Your task to perform on an android device: check android version Image 0: 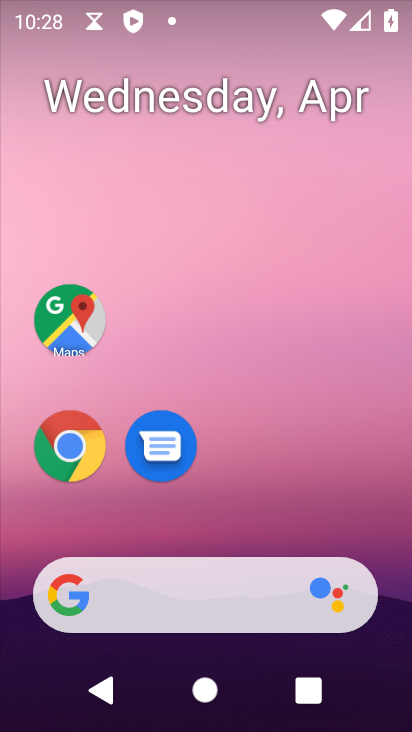
Step 0: drag from (225, 543) to (234, 17)
Your task to perform on an android device: check android version Image 1: 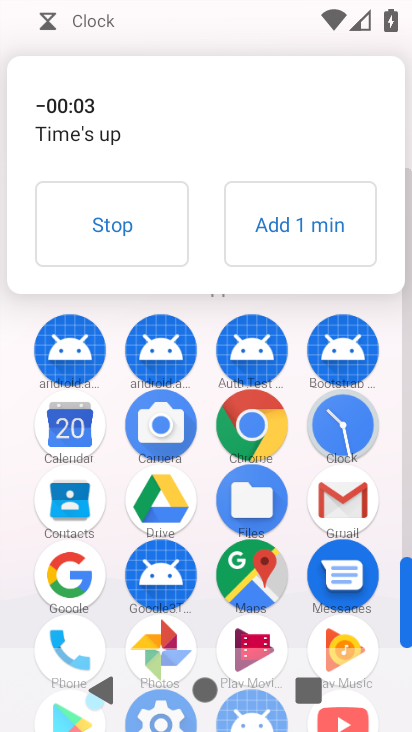
Step 1: click (135, 220)
Your task to perform on an android device: check android version Image 2: 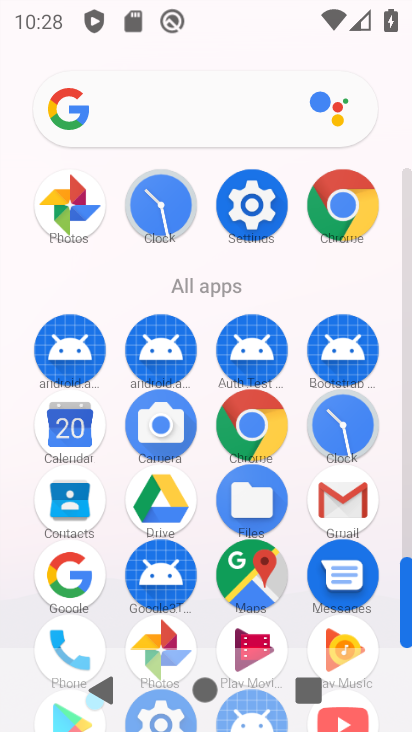
Step 2: click (252, 183)
Your task to perform on an android device: check android version Image 3: 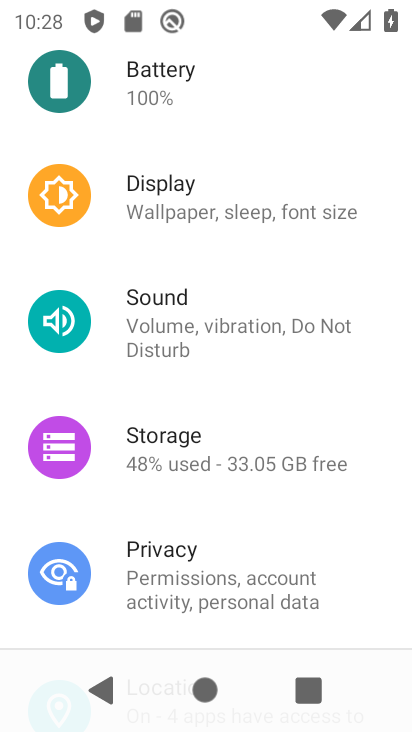
Step 3: drag from (240, 565) to (242, 125)
Your task to perform on an android device: check android version Image 4: 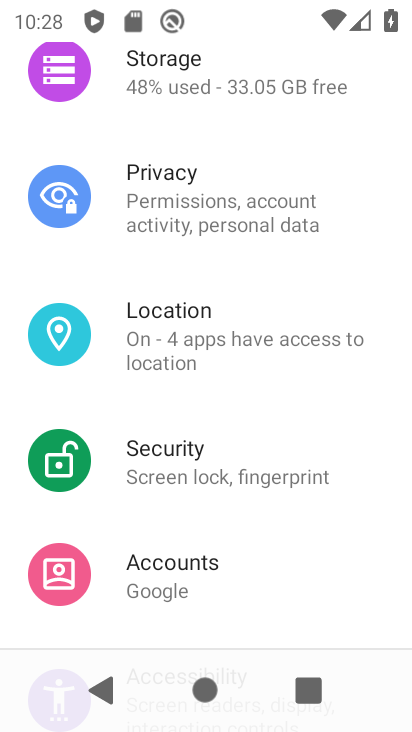
Step 4: drag from (228, 497) to (250, 79)
Your task to perform on an android device: check android version Image 5: 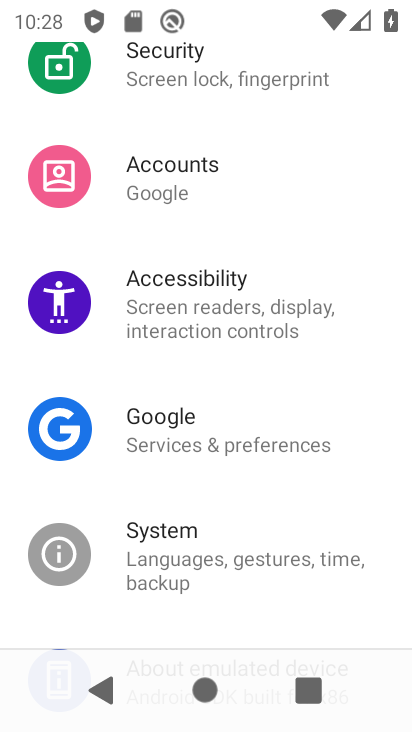
Step 5: drag from (244, 561) to (221, 87)
Your task to perform on an android device: check android version Image 6: 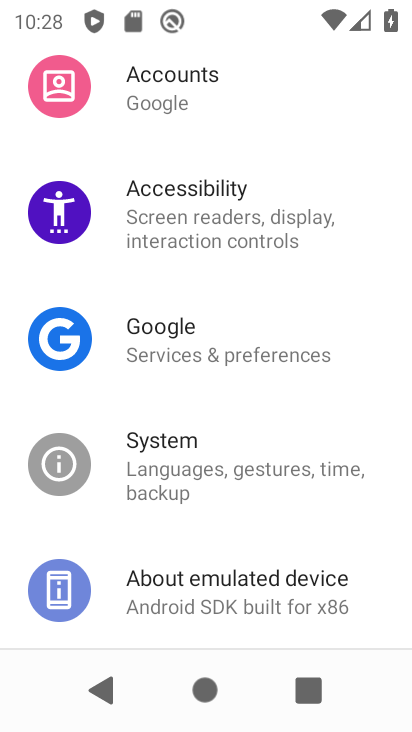
Step 6: click (197, 577)
Your task to perform on an android device: check android version Image 7: 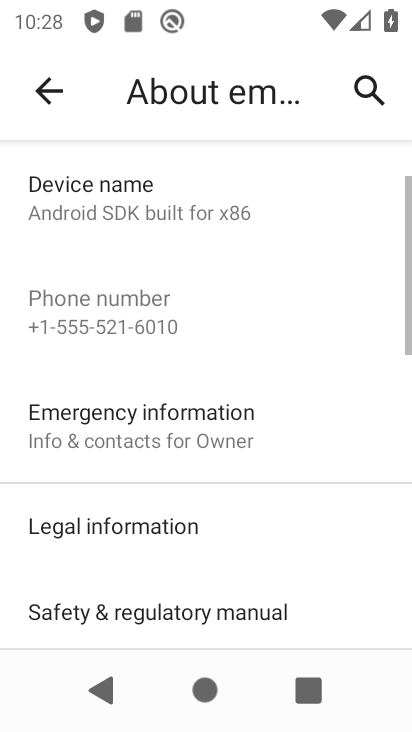
Step 7: drag from (260, 515) to (221, 93)
Your task to perform on an android device: check android version Image 8: 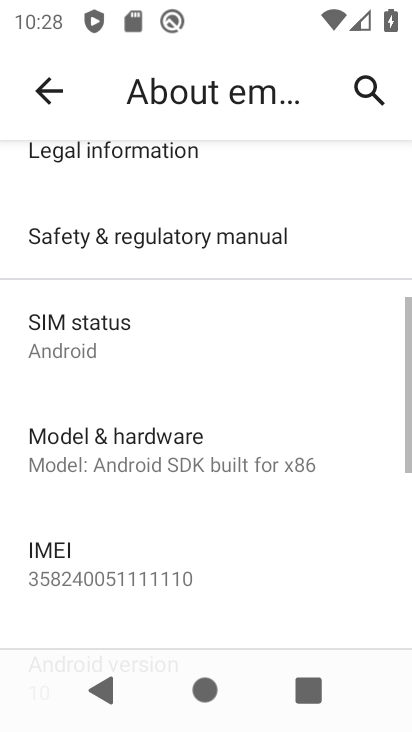
Step 8: drag from (177, 554) to (186, 118)
Your task to perform on an android device: check android version Image 9: 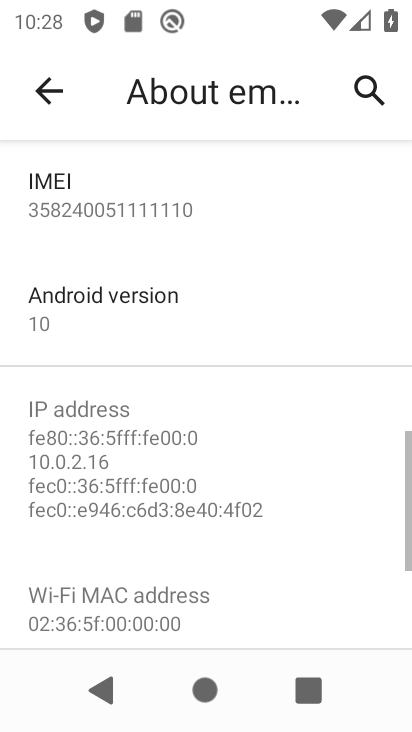
Step 9: click (106, 309)
Your task to perform on an android device: check android version Image 10: 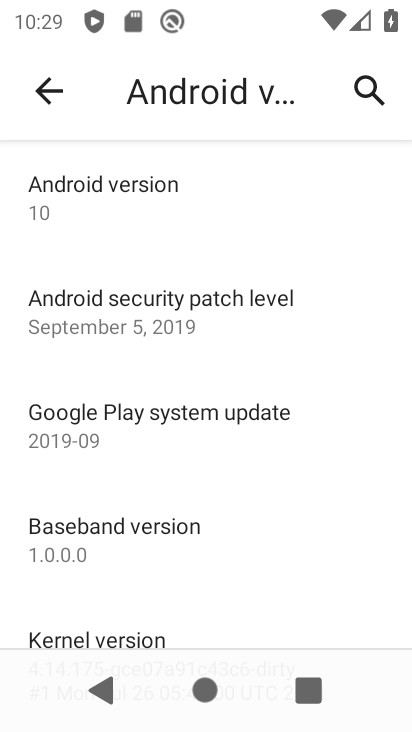
Step 10: task complete